Your task to perform on an android device: turn off translation in the chrome app Image 0: 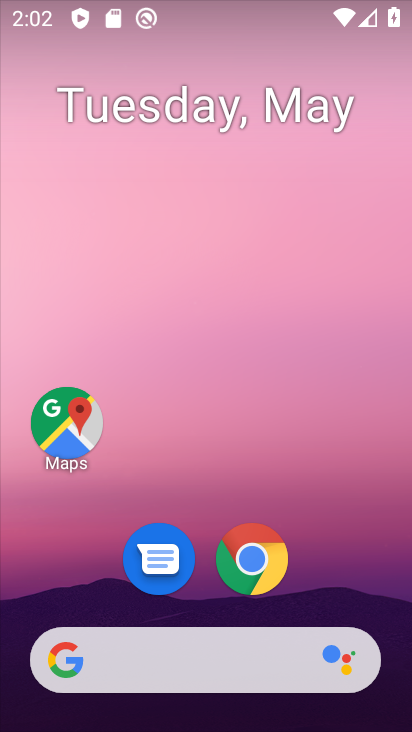
Step 0: click (253, 557)
Your task to perform on an android device: turn off translation in the chrome app Image 1: 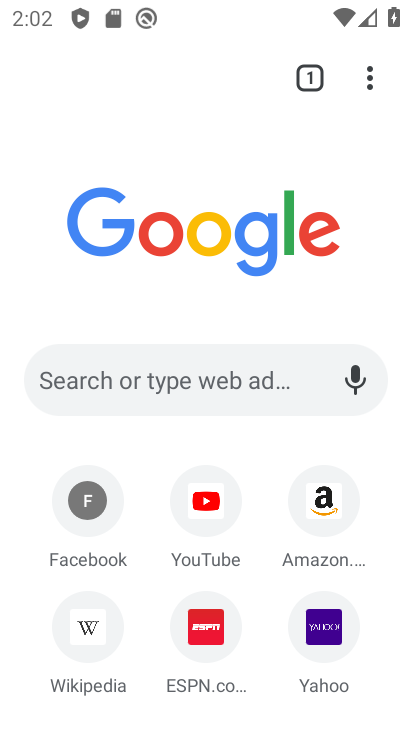
Step 1: click (370, 79)
Your task to perform on an android device: turn off translation in the chrome app Image 2: 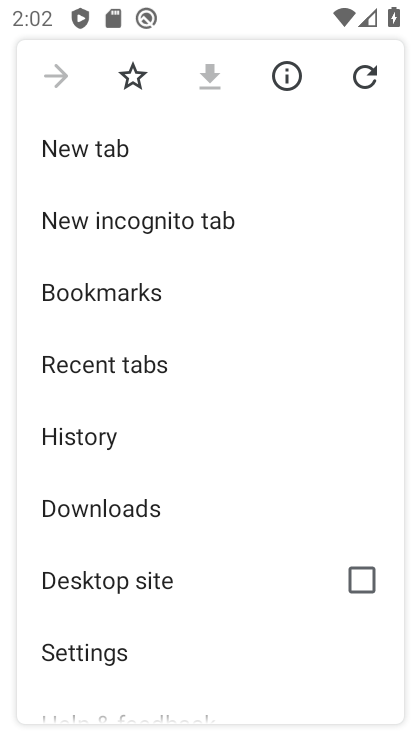
Step 2: click (99, 652)
Your task to perform on an android device: turn off translation in the chrome app Image 3: 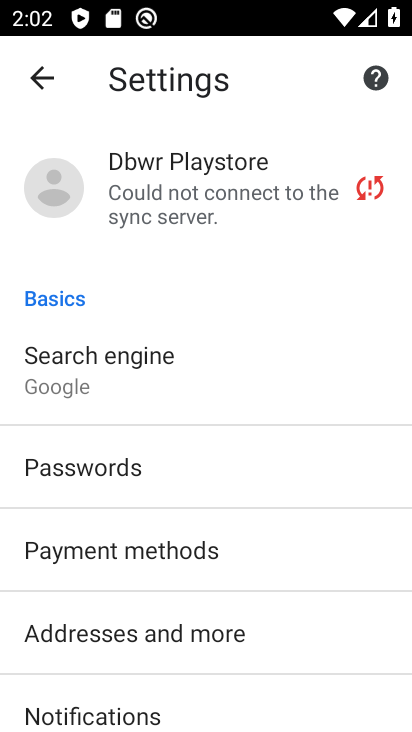
Step 3: drag from (145, 574) to (206, 408)
Your task to perform on an android device: turn off translation in the chrome app Image 4: 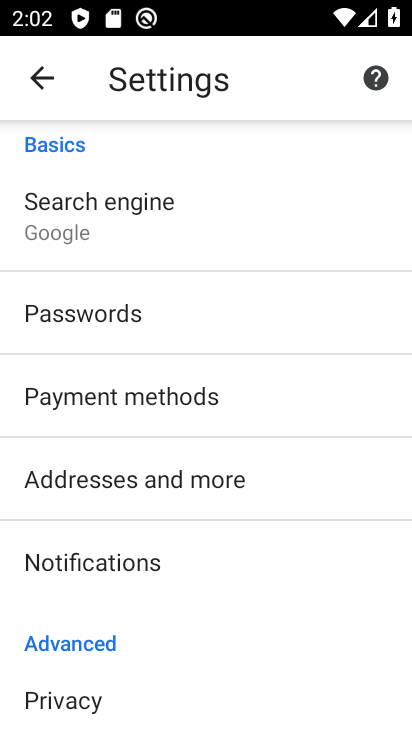
Step 4: drag from (140, 606) to (189, 474)
Your task to perform on an android device: turn off translation in the chrome app Image 5: 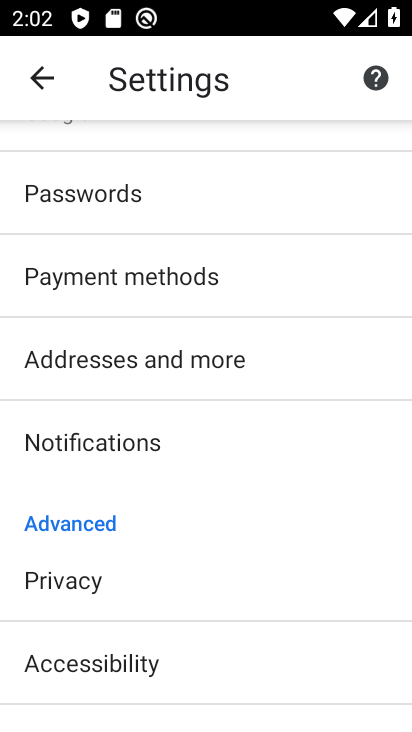
Step 5: drag from (149, 596) to (187, 455)
Your task to perform on an android device: turn off translation in the chrome app Image 6: 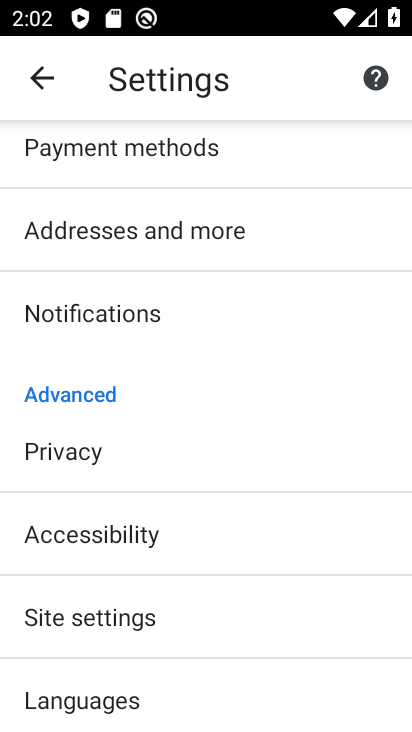
Step 6: drag from (135, 639) to (206, 511)
Your task to perform on an android device: turn off translation in the chrome app Image 7: 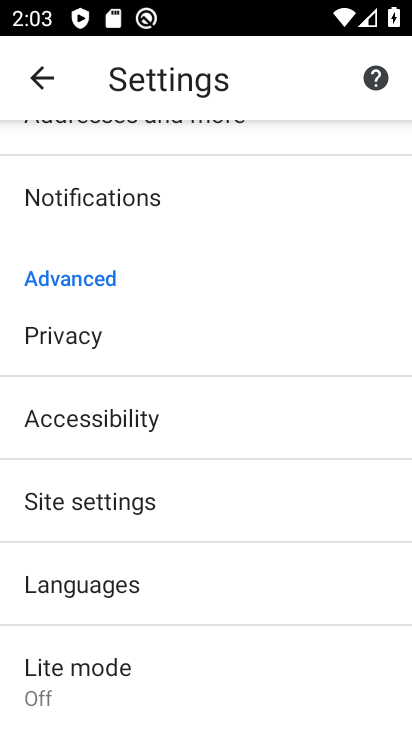
Step 7: click (114, 587)
Your task to perform on an android device: turn off translation in the chrome app Image 8: 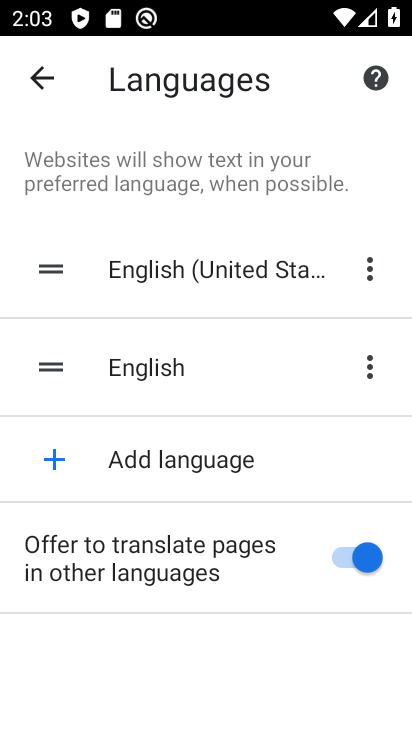
Step 8: click (343, 556)
Your task to perform on an android device: turn off translation in the chrome app Image 9: 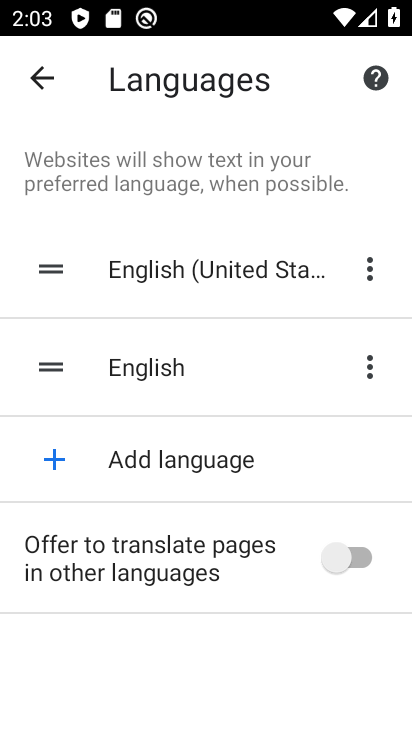
Step 9: task complete